Your task to perform on an android device: star an email in the gmail app Image 0: 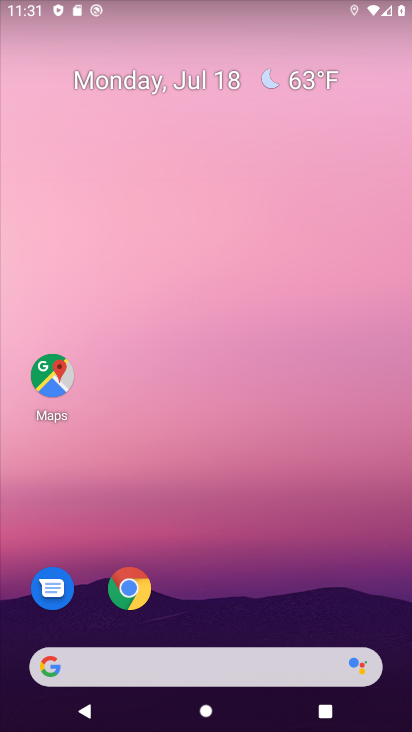
Step 0: drag from (231, 537) to (284, 0)
Your task to perform on an android device: star an email in the gmail app Image 1: 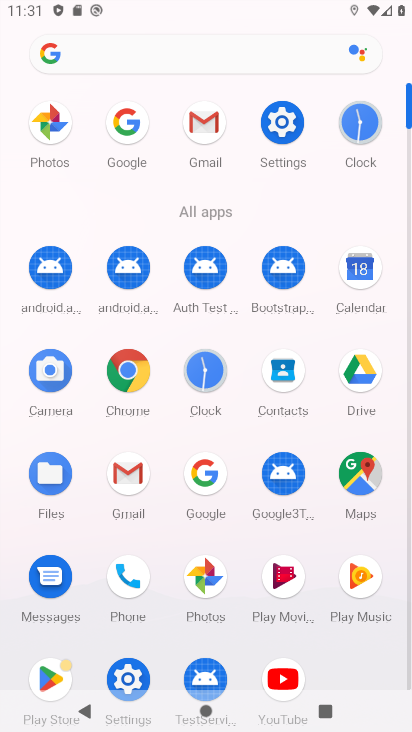
Step 1: click (205, 123)
Your task to perform on an android device: star an email in the gmail app Image 2: 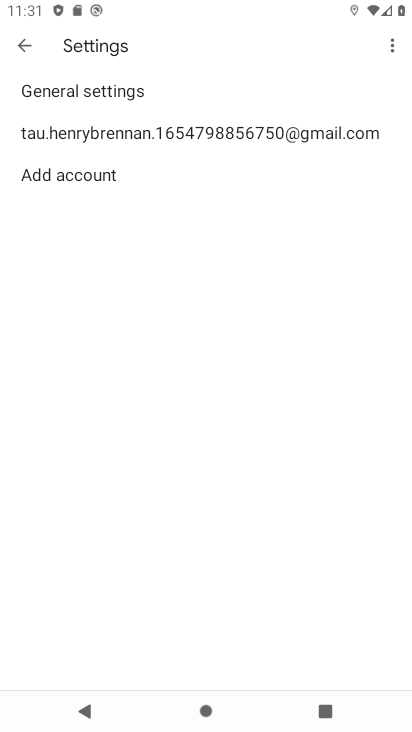
Step 2: click (173, 135)
Your task to perform on an android device: star an email in the gmail app Image 3: 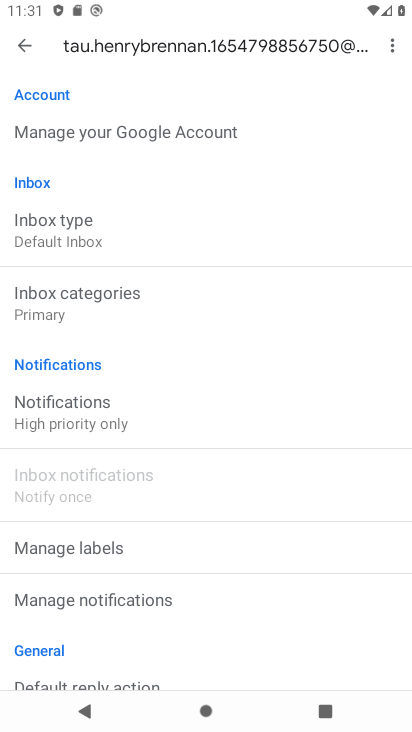
Step 3: click (30, 45)
Your task to perform on an android device: star an email in the gmail app Image 4: 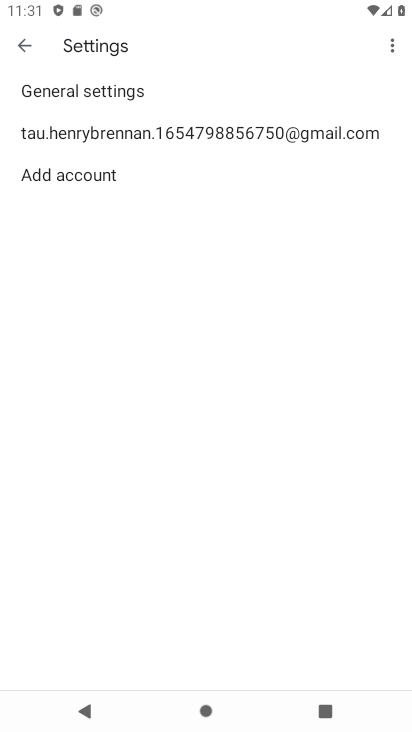
Step 4: click (30, 45)
Your task to perform on an android device: star an email in the gmail app Image 5: 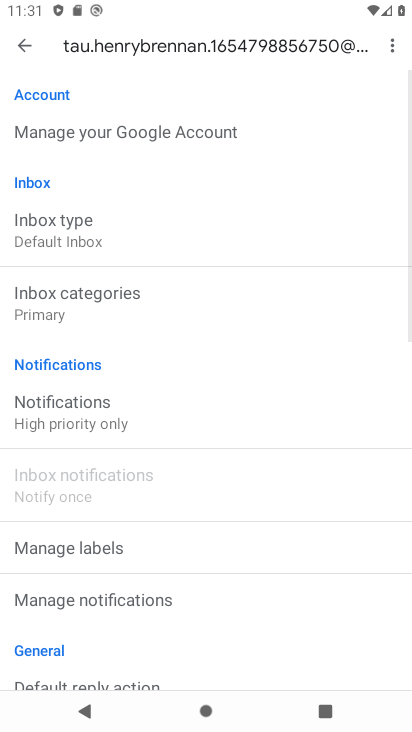
Step 5: click (28, 46)
Your task to perform on an android device: star an email in the gmail app Image 6: 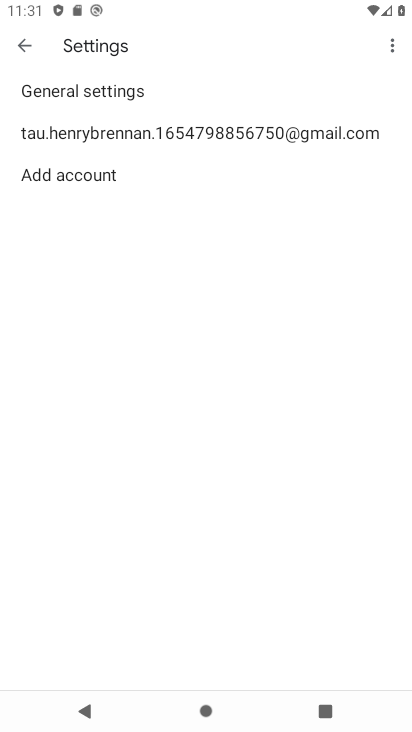
Step 6: click (28, 46)
Your task to perform on an android device: star an email in the gmail app Image 7: 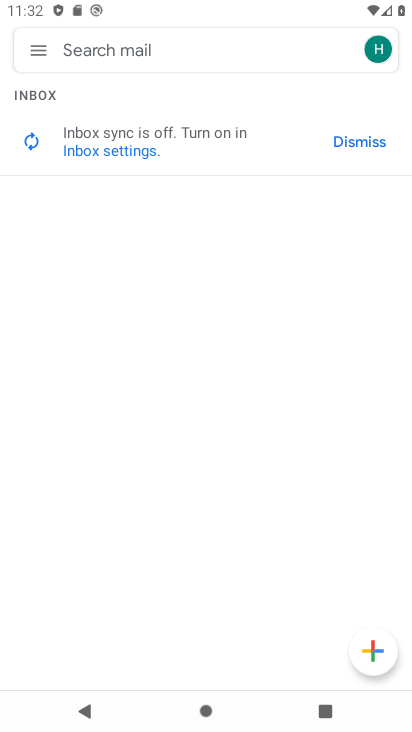
Step 7: task complete